Your task to perform on an android device: Turn off the flashlight Image 0: 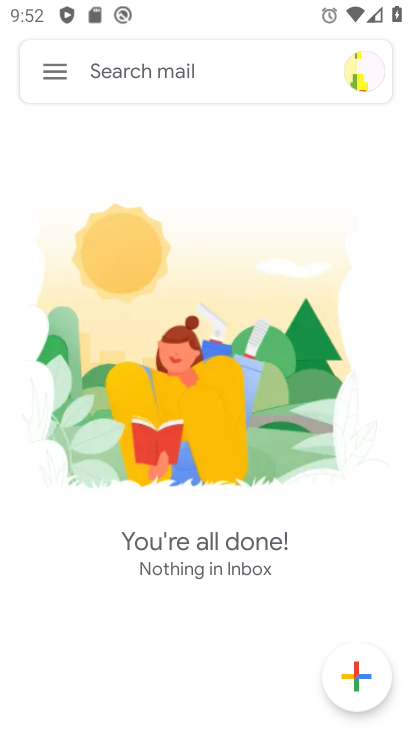
Step 0: press home button
Your task to perform on an android device: Turn off the flashlight Image 1: 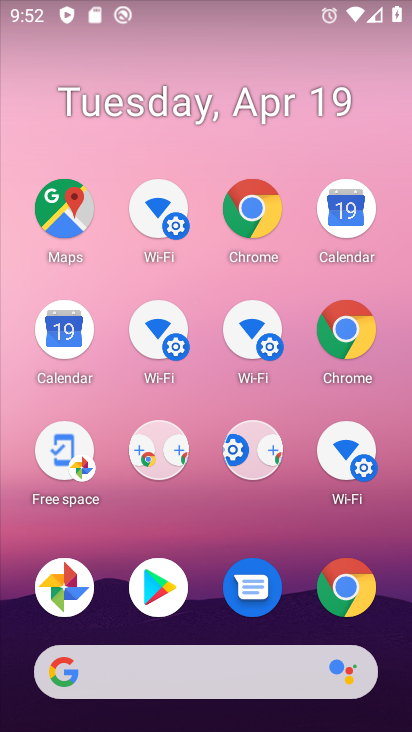
Step 1: task complete